Your task to perform on an android device: clear all cookies in the chrome app Image 0: 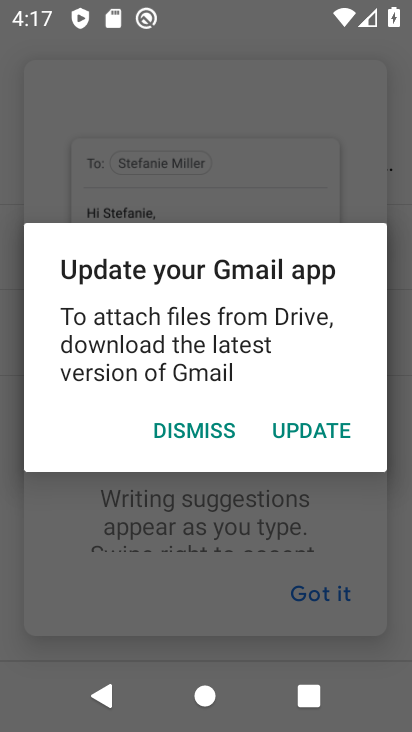
Step 0: press home button
Your task to perform on an android device: clear all cookies in the chrome app Image 1: 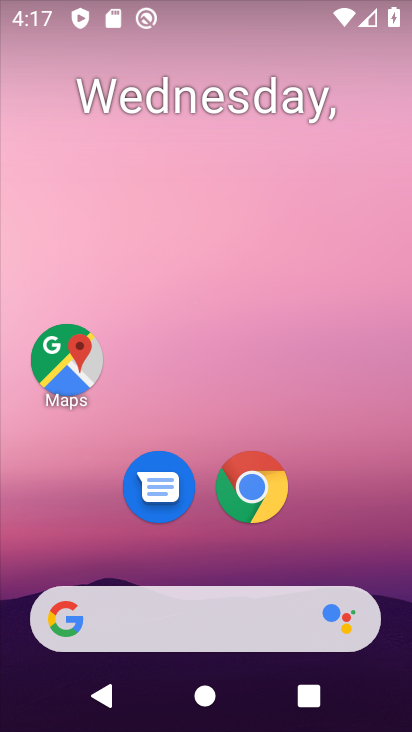
Step 1: drag from (350, 507) to (339, 88)
Your task to perform on an android device: clear all cookies in the chrome app Image 2: 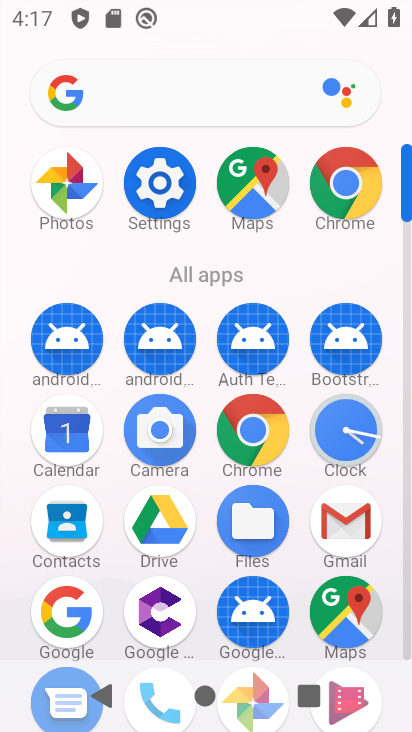
Step 2: click (243, 425)
Your task to perform on an android device: clear all cookies in the chrome app Image 3: 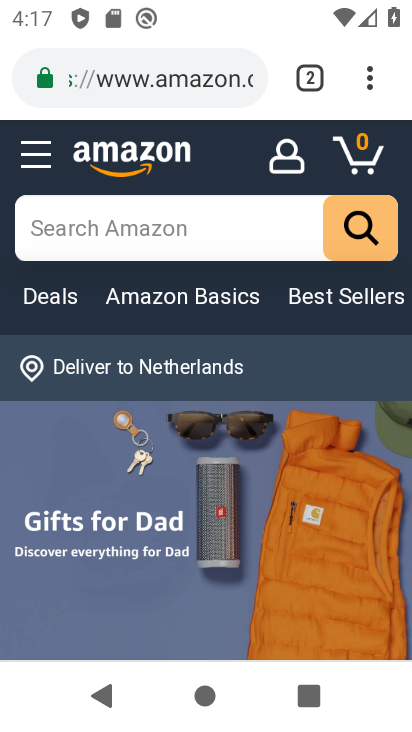
Step 3: drag from (369, 75) to (118, 431)
Your task to perform on an android device: clear all cookies in the chrome app Image 4: 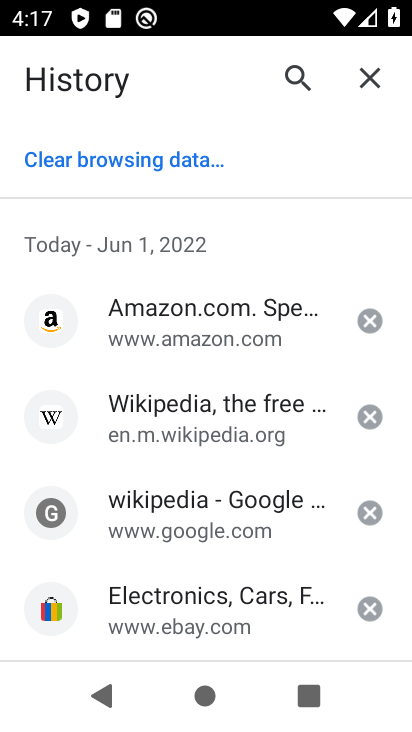
Step 4: click (130, 149)
Your task to perform on an android device: clear all cookies in the chrome app Image 5: 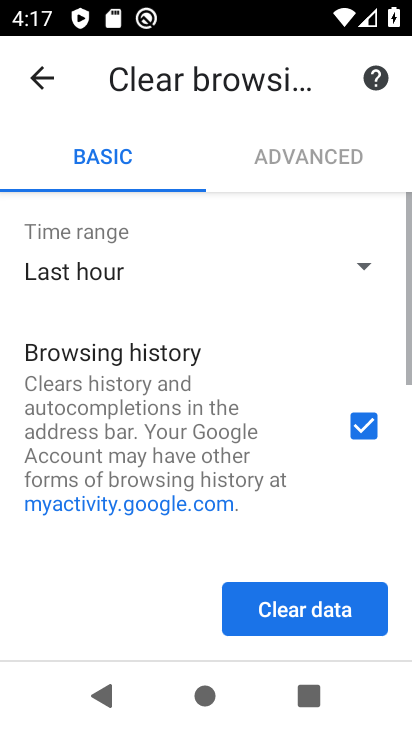
Step 5: click (275, 254)
Your task to perform on an android device: clear all cookies in the chrome app Image 6: 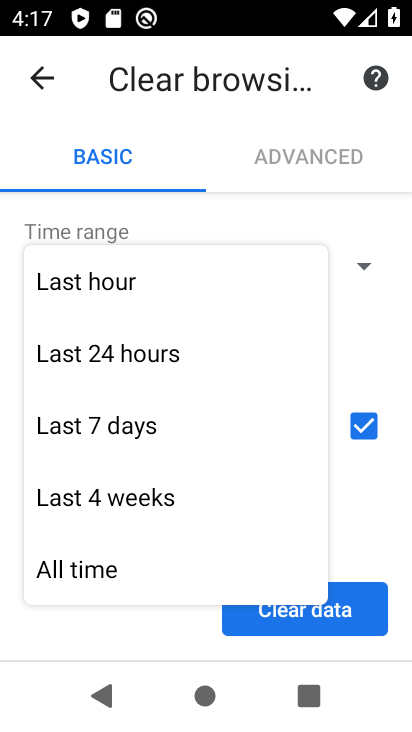
Step 6: click (129, 562)
Your task to perform on an android device: clear all cookies in the chrome app Image 7: 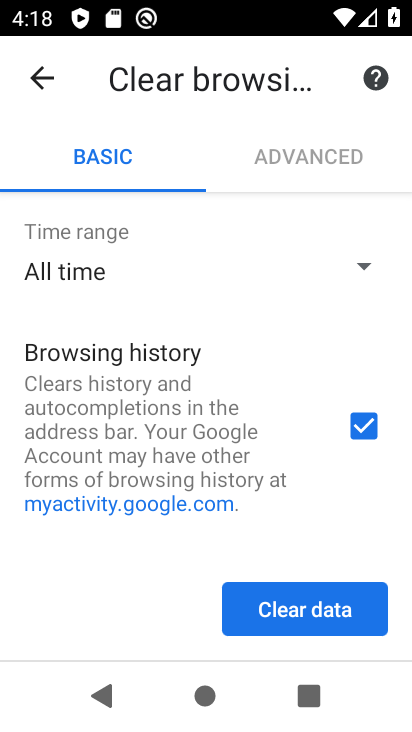
Step 7: click (307, 612)
Your task to perform on an android device: clear all cookies in the chrome app Image 8: 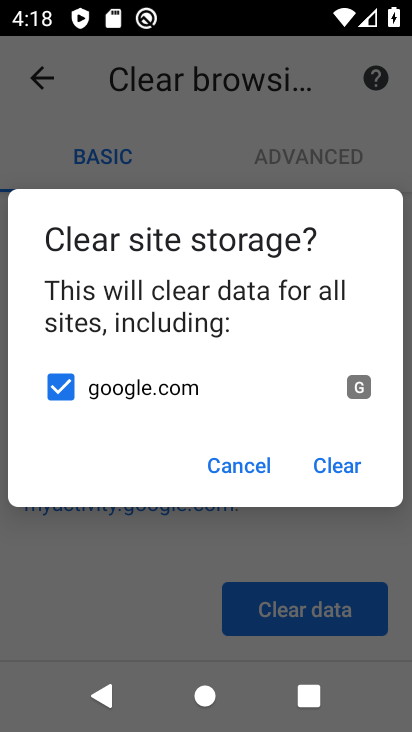
Step 8: click (340, 460)
Your task to perform on an android device: clear all cookies in the chrome app Image 9: 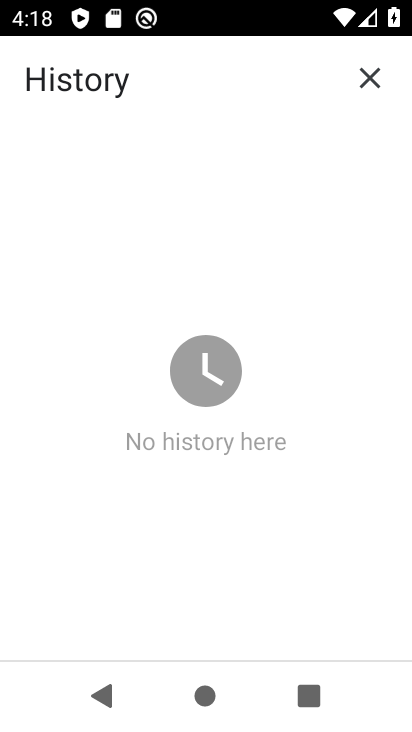
Step 9: task complete